Your task to perform on an android device: toggle airplane mode Image 0: 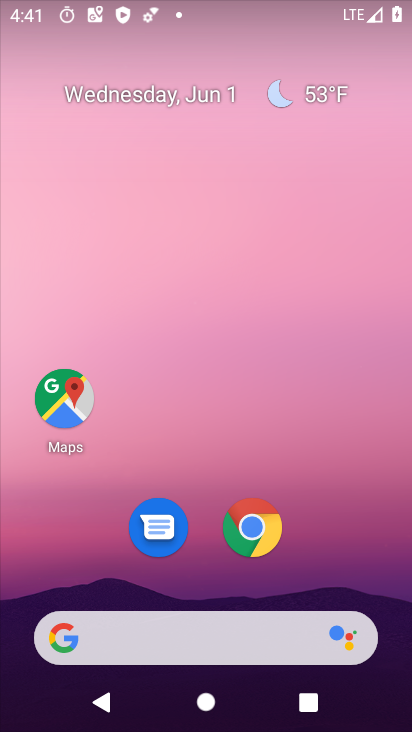
Step 0: press home button
Your task to perform on an android device: toggle airplane mode Image 1: 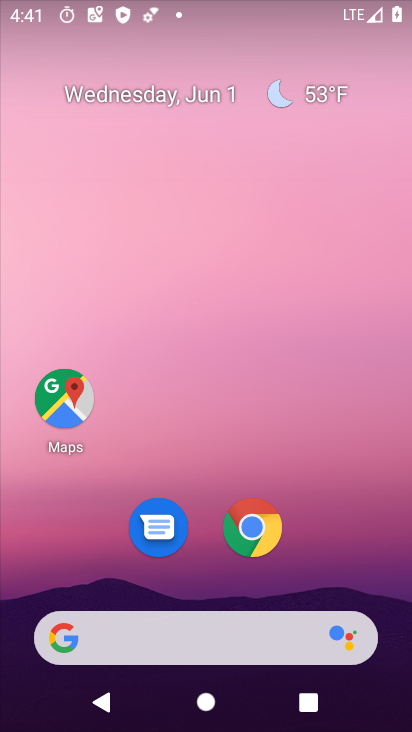
Step 1: drag from (258, 4) to (209, 460)
Your task to perform on an android device: toggle airplane mode Image 2: 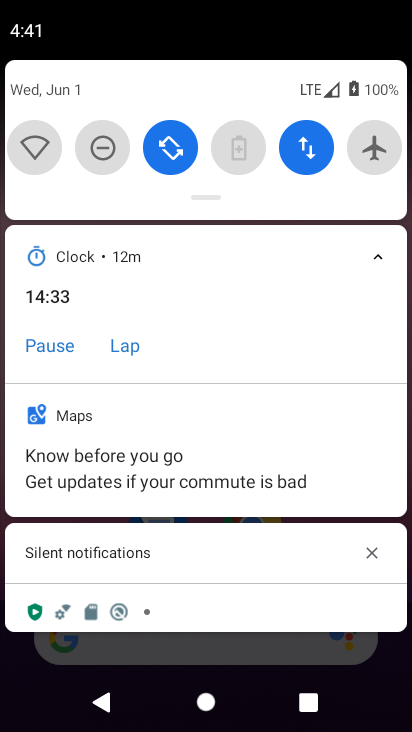
Step 2: click (362, 142)
Your task to perform on an android device: toggle airplane mode Image 3: 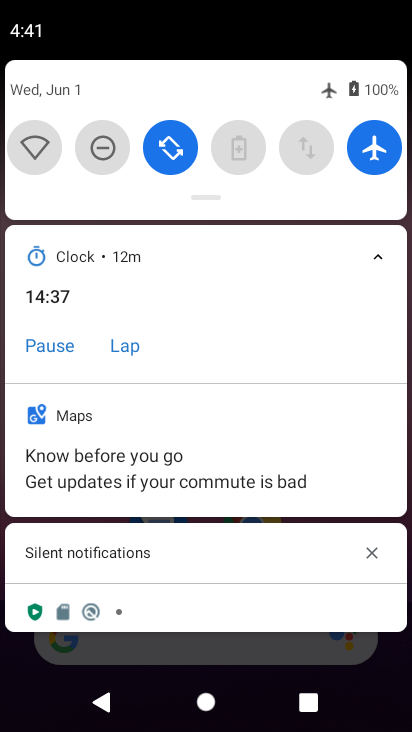
Step 3: task complete